Your task to perform on an android device: Go to location settings Image 0: 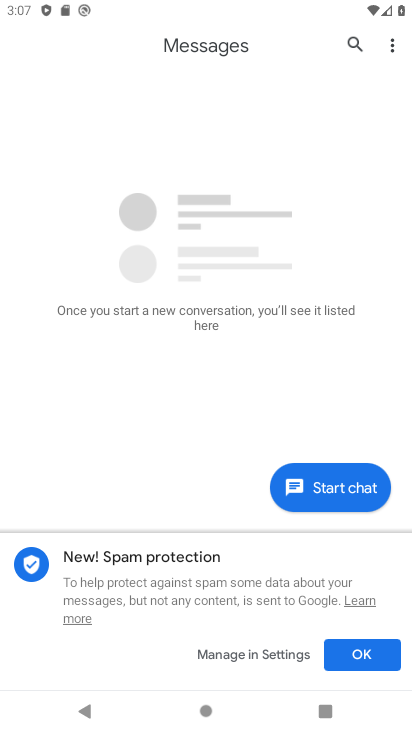
Step 0: press home button
Your task to perform on an android device: Go to location settings Image 1: 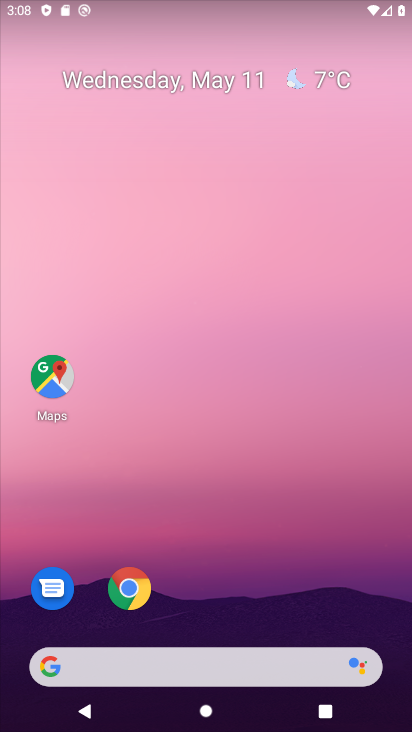
Step 1: drag from (231, 714) to (237, 179)
Your task to perform on an android device: Go to location settings Image 2: 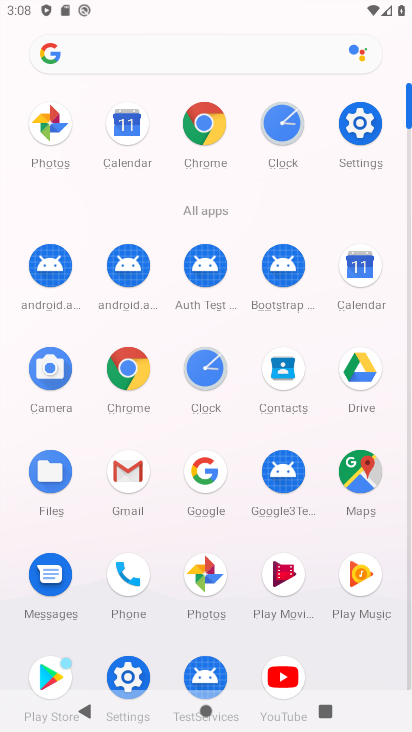
Step 2: click (367, 123)
Your task to perform on an android device: Go to location settings Image 3: 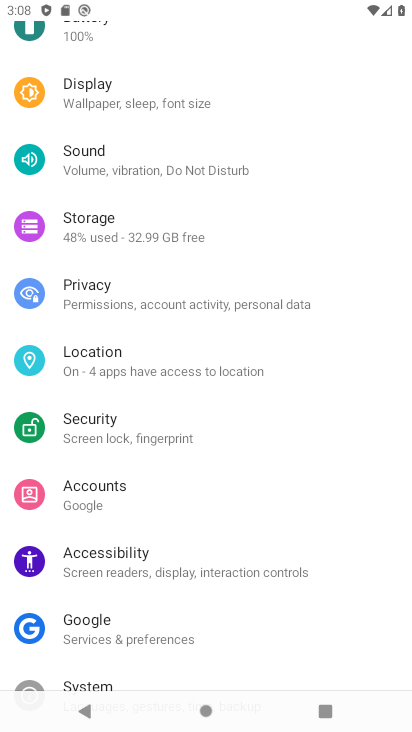
Step 3: click (85, 357)
Your task to perform on an android device: Go to location settings Image 4: 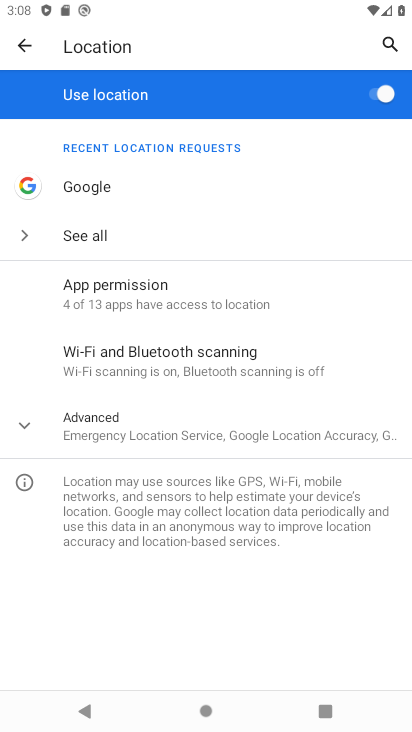
Step 4: task complete